Your task to perform on an android device: Add razer huntsman to the cart on newegg.com Image 0: 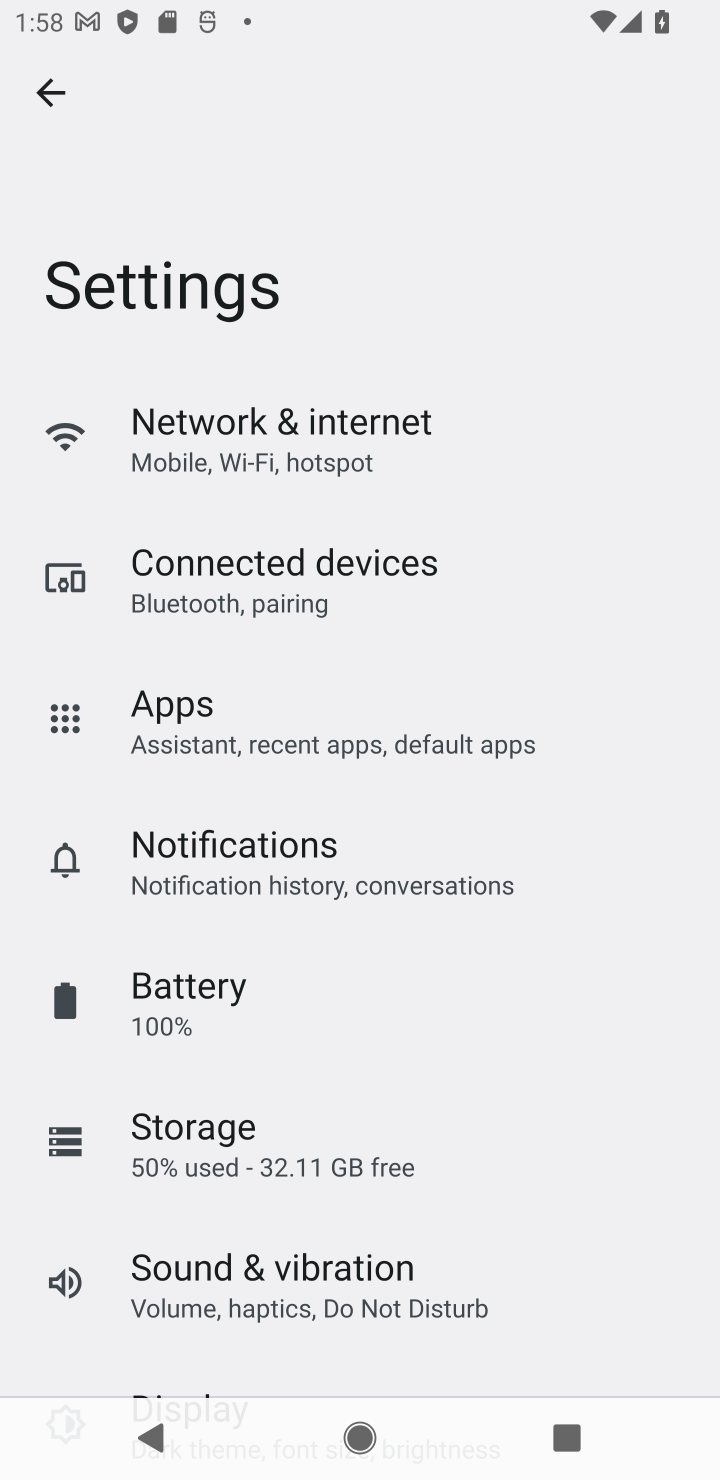
Step 0: press home button
Your task to perform on an android device: Add razer huntsman to the cart on newegg.com Image 1: 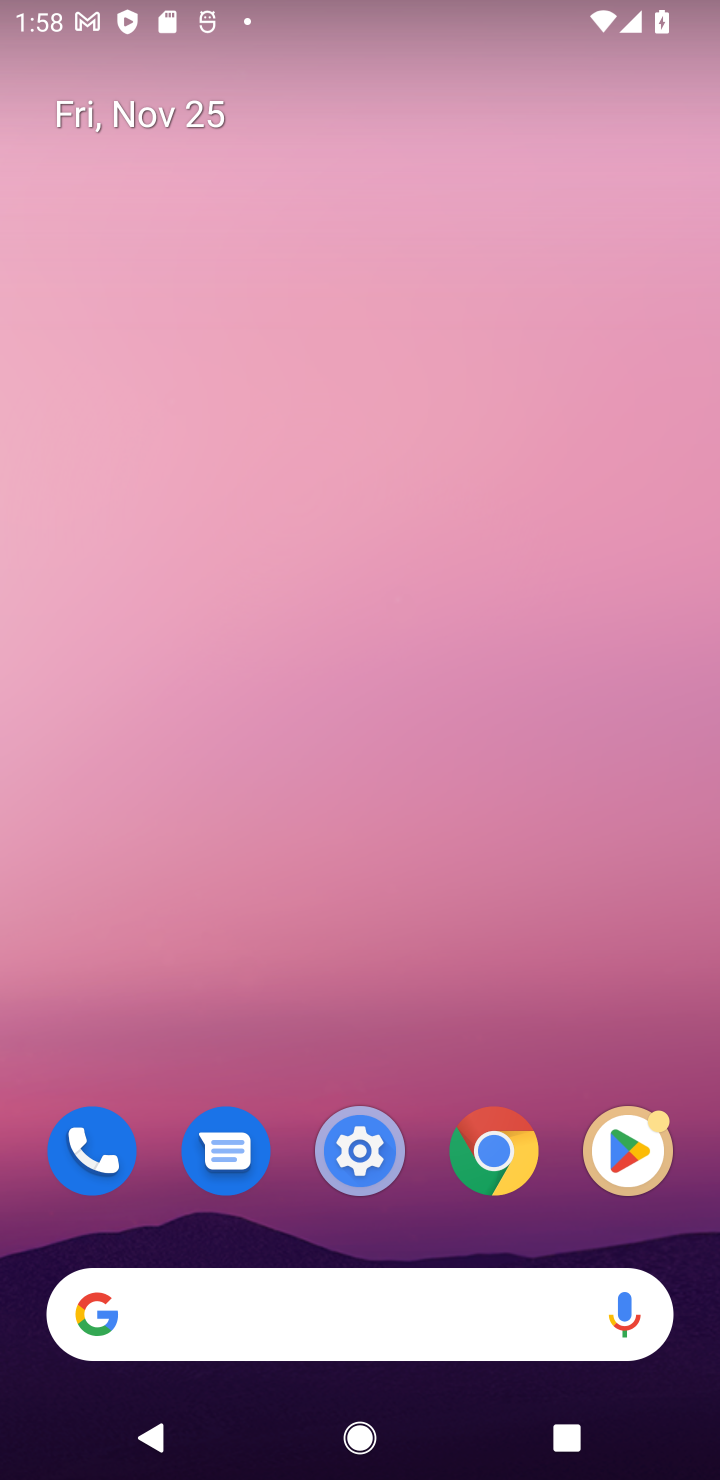
Step 1: click (325, 1339)
Your task to perform on an android device: Add razer huntsman to the cart on newegg.com Image 2: 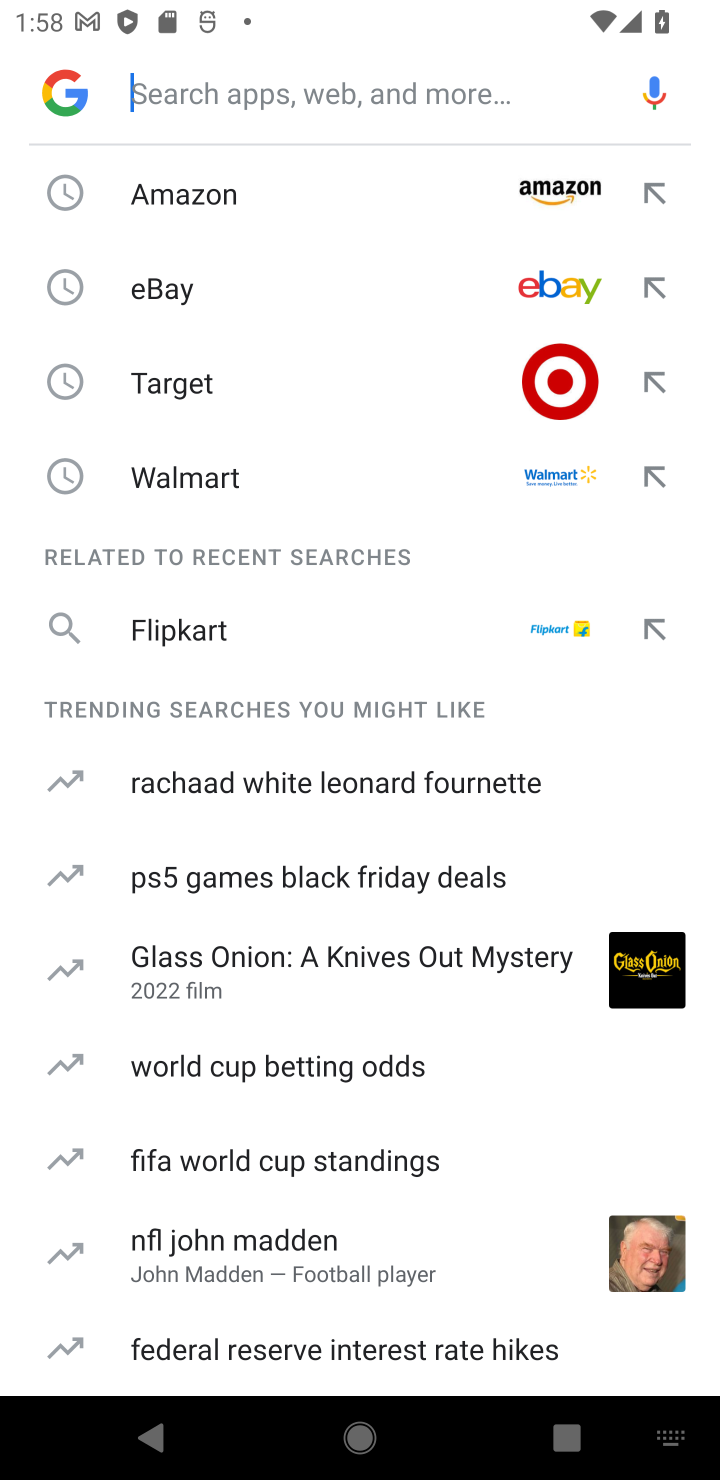
Step 2: type "newegg"
Your task to perform on an android device: Add razer huntsman to the cart on newegg.com Image 3: 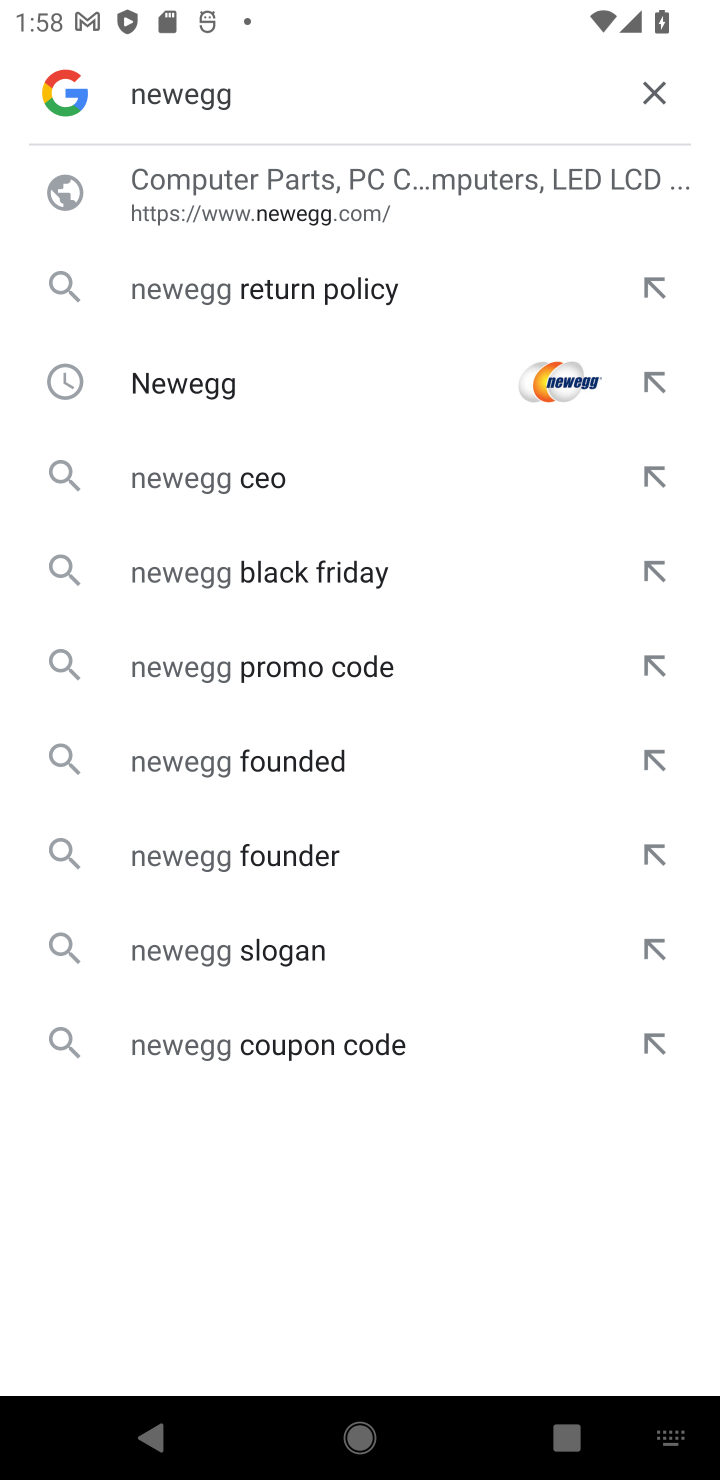
Step 3: click (267, 232)
Your task to perform on an android device: Add razer huntsman to the cart on newegg.com Image 4: 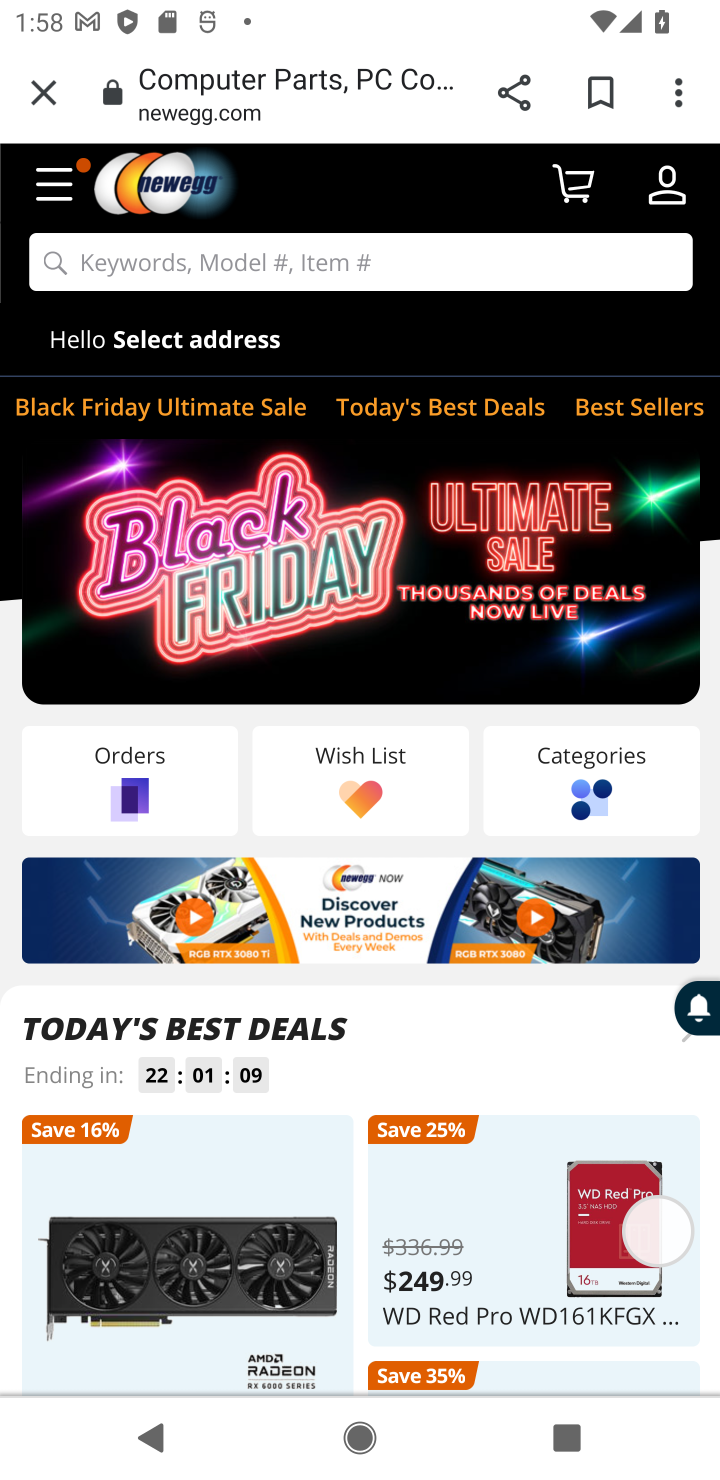
Step 4: task complete